Your task to perform on an android device: search for starred emails in the gmail app Image 0: 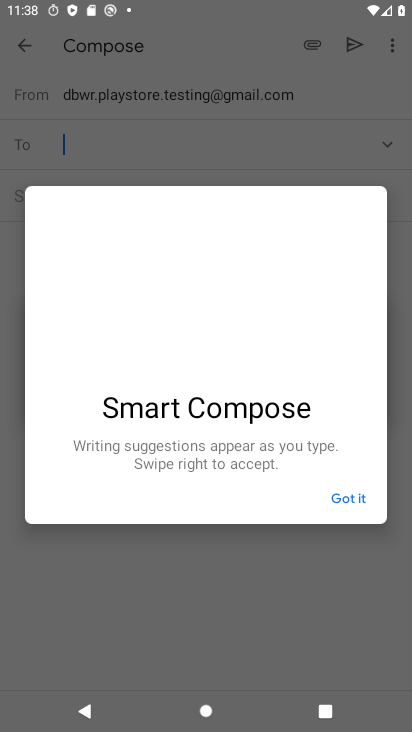
Step 0: drag from (214, 129) to (219, 19)
Your task to perform on an android device: search for starred emails in the gmail app Image 1: 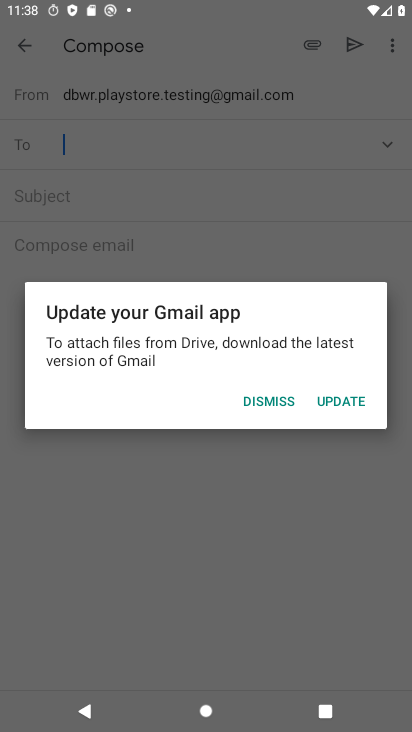
Step 1: press home button
Your task to perform on an android device: search for starred emails in the gmail app Image 2: 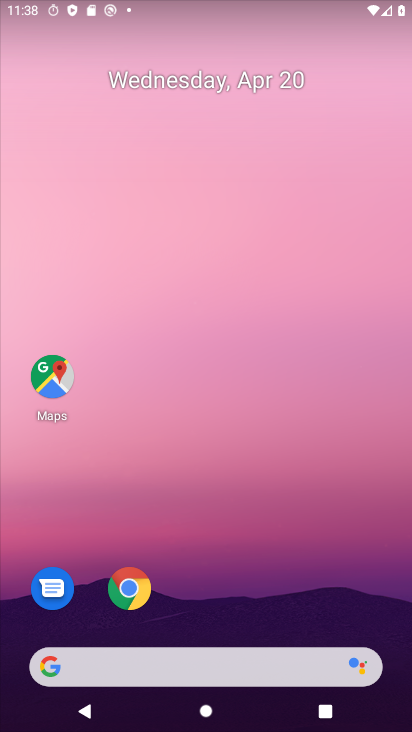
Step 2: drag from (213, 622) to (208, 0)
Your task to perform on an android device: search for starred emails in the gmail app Image 3: 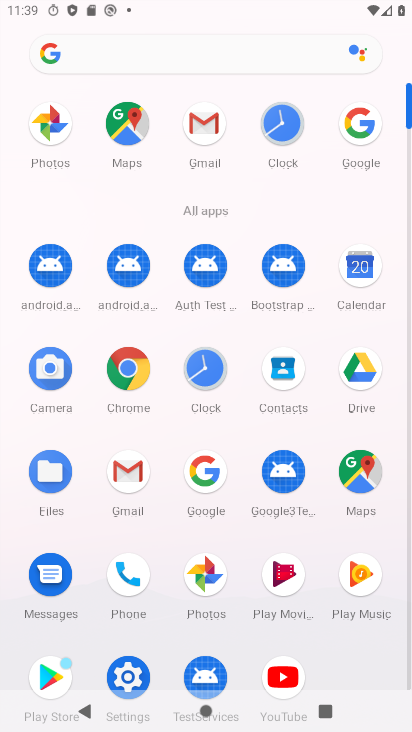
Step 3: click (127, 467)
Your task to perform on an android device: search for starred emails in the gmail app Image 4: 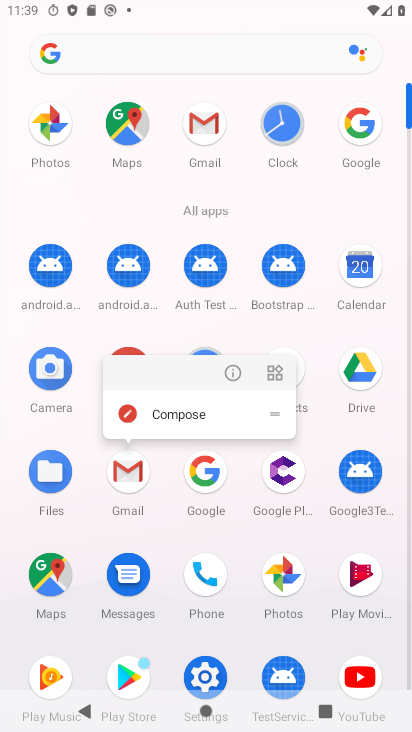
Step 4: click (127, 467)
Your task to perform on an android device: search for starred emails in the gmail app Image 5: 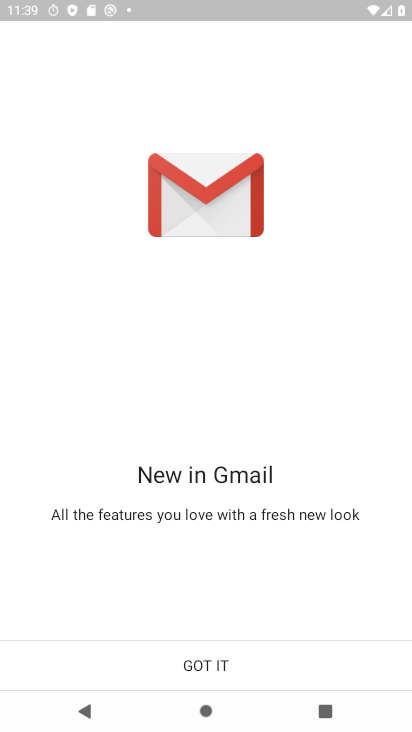
Step 5: click (209, 669)
Your task to perform on an android device: search for starred emails in the gmail app Image 6: 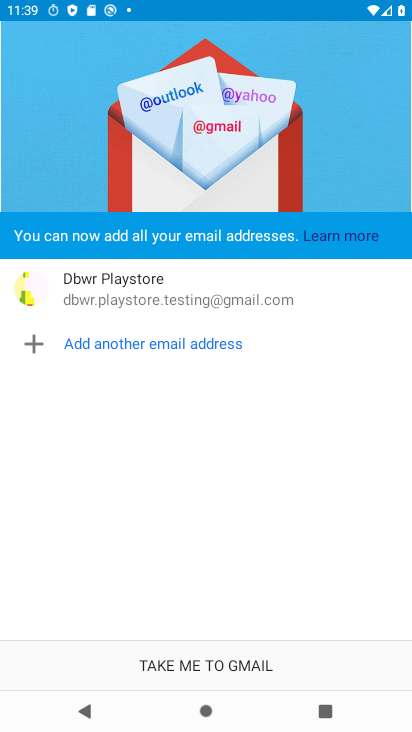
Step 6: click (200, 667)
Your task to perform on an android device: search for starred emails in the gmail app Image 7: 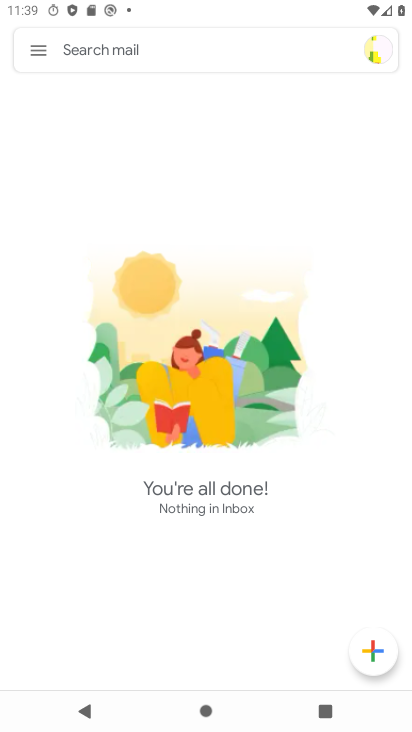
Step 7: click (36, 51)
Your task to perform on an android device: search for starred emails in the gmail app Image 8: 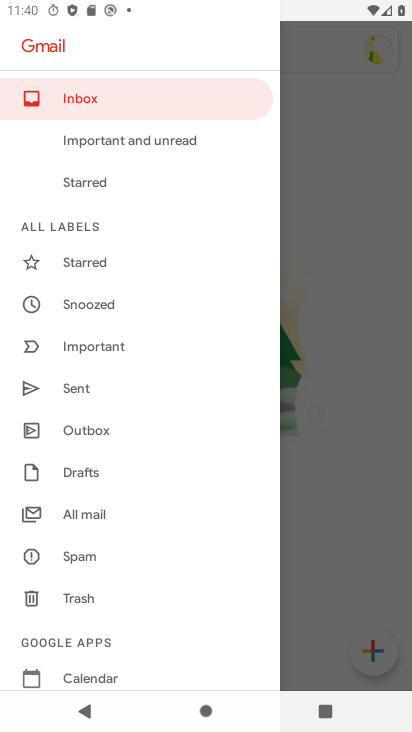
Step 8: click (115, 260)
Your task to perform on an android device: search for starred emails in the gmail app Image 9: 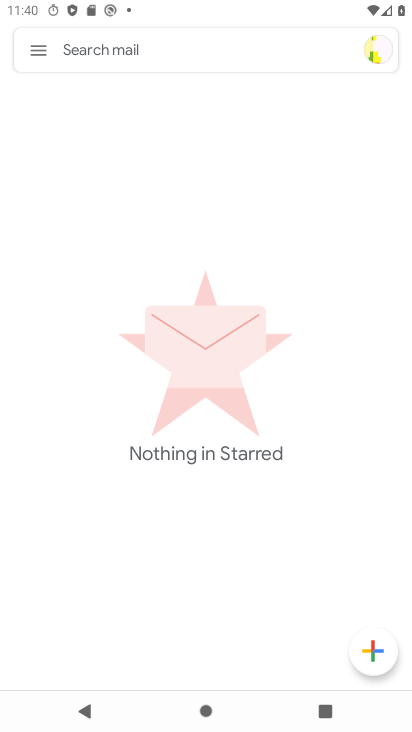
Step 9: task complete